Your task to perform on an android device: turn pop-ups on in chrome Image 0: 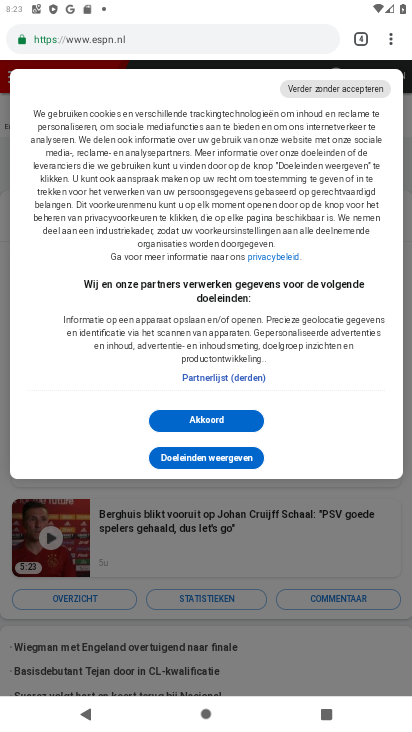
Step 0: press home button
Your task to perform on an android device: turn pop-ups on in chrome Image 1: 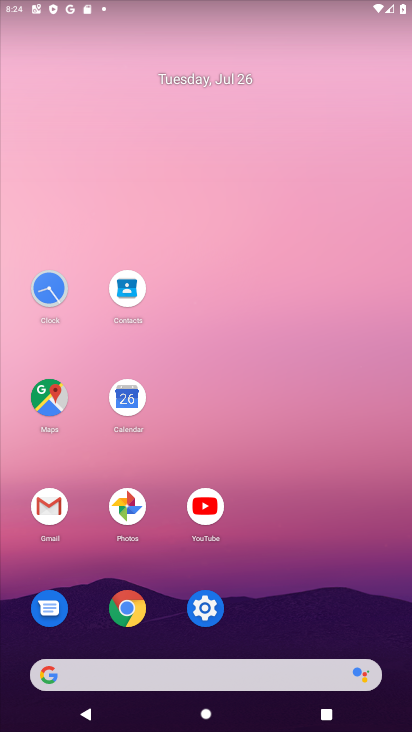
Step 1: click (130, 615)
Your task to perform on an android device: turn pop-ups on in chrome Image 2: 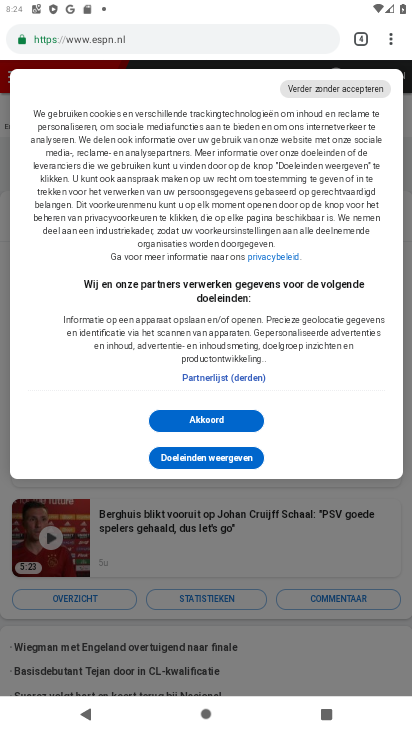
Step 2: click (386, 32)
Your task to perform on an android device: turn pop-ups on in chrome Image 3: 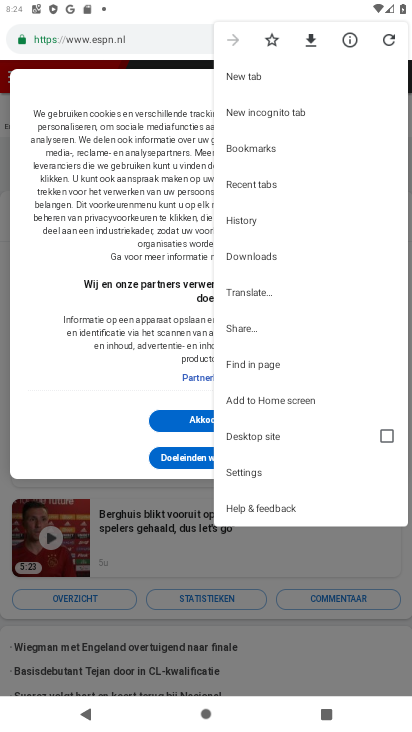
Step 3: click (247, 470)
Your task to perform on an android device: turn pop-ups on in chrome Image 4: 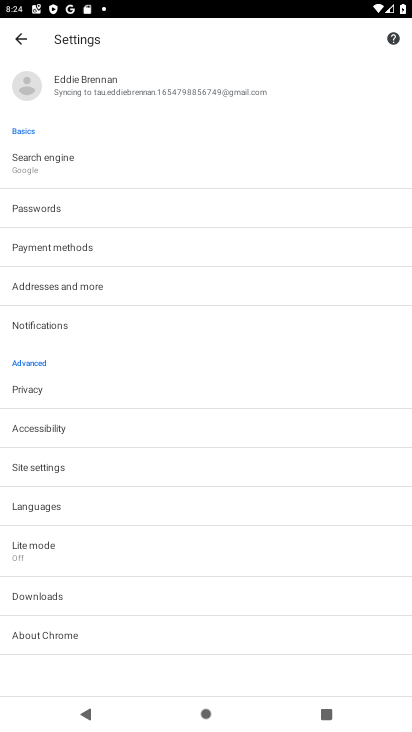
Step 4: click (44, 468)
Your task to perform on an android device: turn pop-ups on in chrome Image 5: 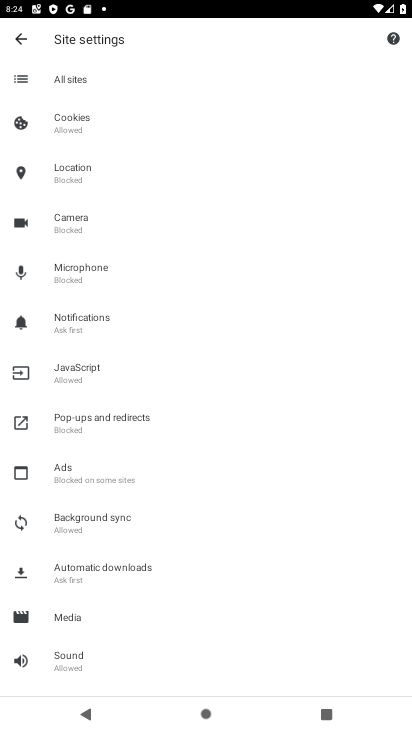
Step 5: click (91, 418)
Your task to perform on an android device: turn pop-ups on in chrome Image 6: 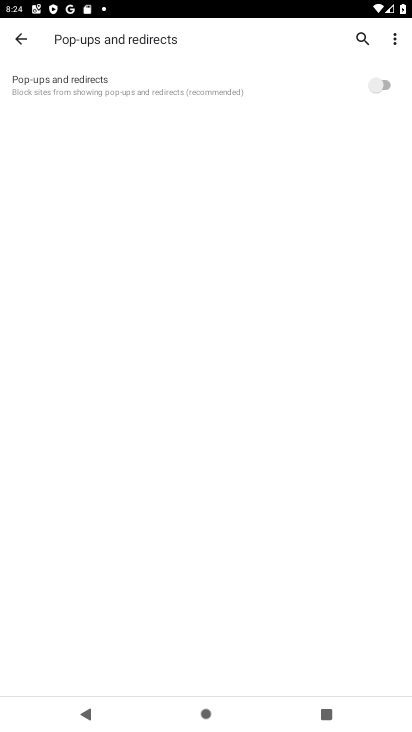
Step 6: click (376, 82)
Your task to perform on an android device: turn pop-ups on in chrome Image 7: 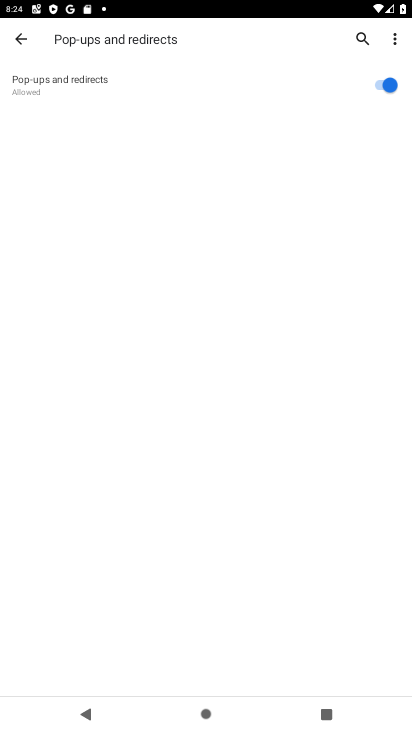
Step 7: task complete